Your task to perform on an android device: Do I have any events tomorrow? Image 0: 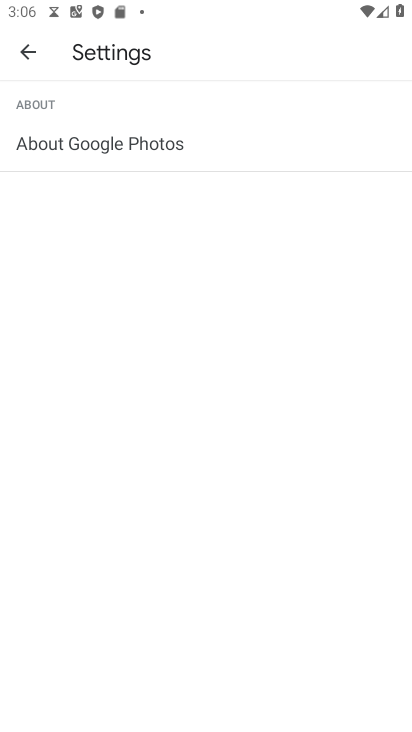
Step 0: drag from (174, 498) to (244, 168)
Your task to perform on an android device: Do I have any events tomorrow? Image 1: 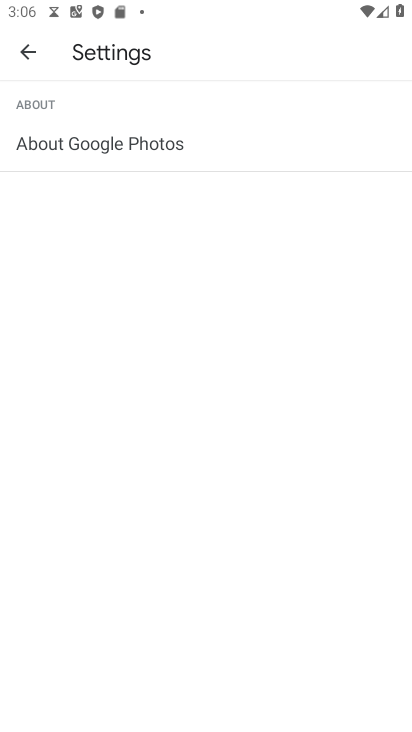
Step 1: drag from (169, 555) to (258, 186)
Your task to perform on an android device: Do I have any events tomorrow? Image 2: 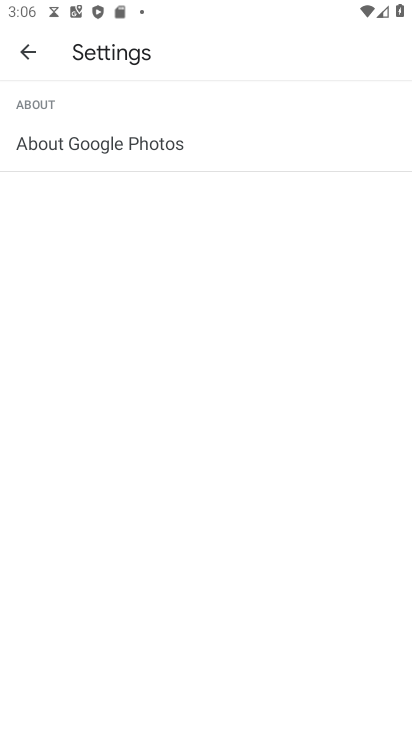
Step 2: drag from (266, 437) to (288, 258)
Your task to perform on an android device: Do I have any events tomorrow? Image 3: 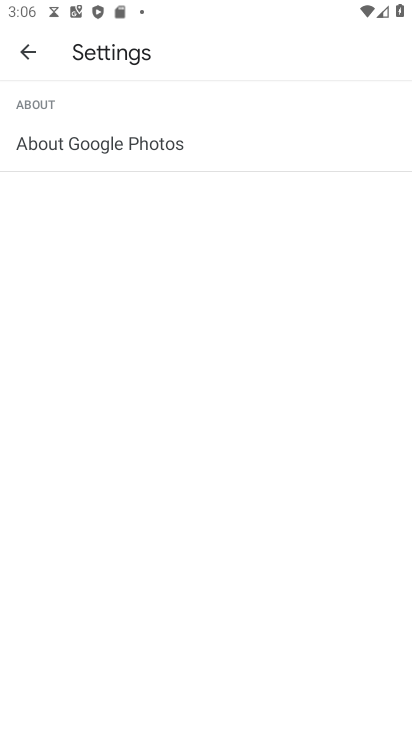
Step 3: press home button
Your task to perform on an android device: Do I have any events tomorrow? Image 4: 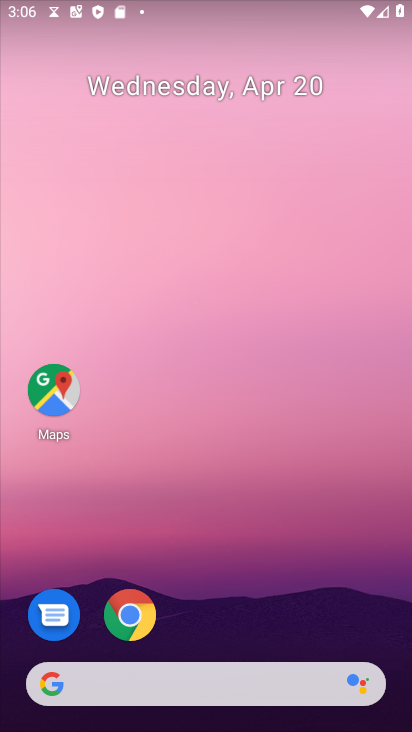
Step 4: drag from (205, 558) to (255, 164)
Your task to perform on an android device: Do I have any events tomorrow? Image 5: 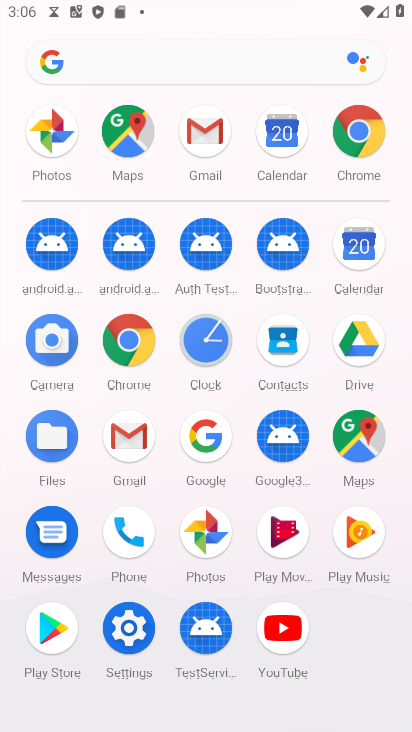
Step 5: click (360, 252)
Your task to perform on an android device: Do I have any events tomorrow? Image 6: 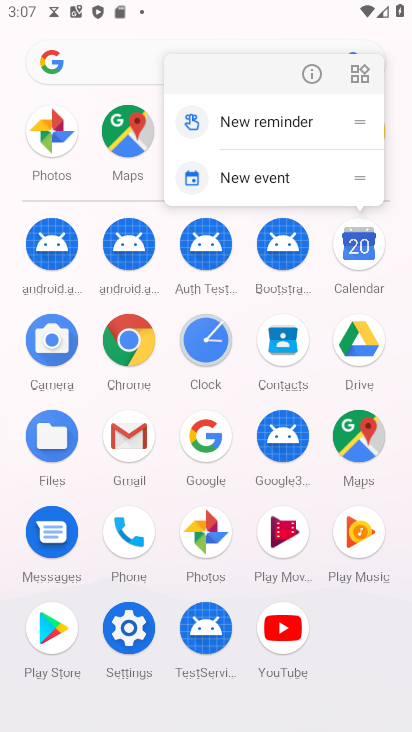
Step 6: click (307, 67)
Your task to perform on an android device: Do I have any events tomorrow? Image 7: 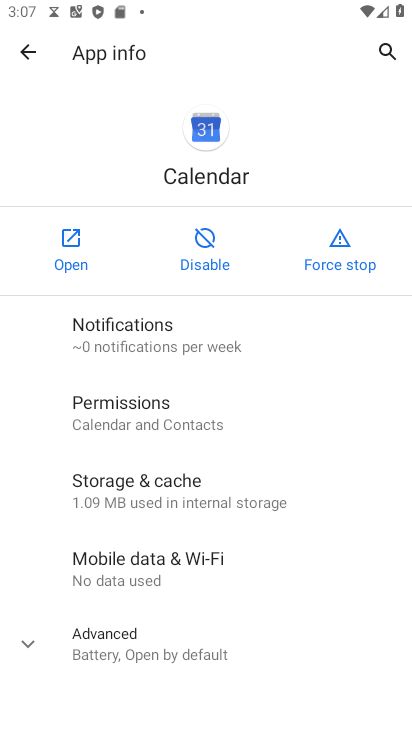
Step 7: click (85, 237)
Your task to perform on an android device: Do I have any events tomorrow? Image 8: 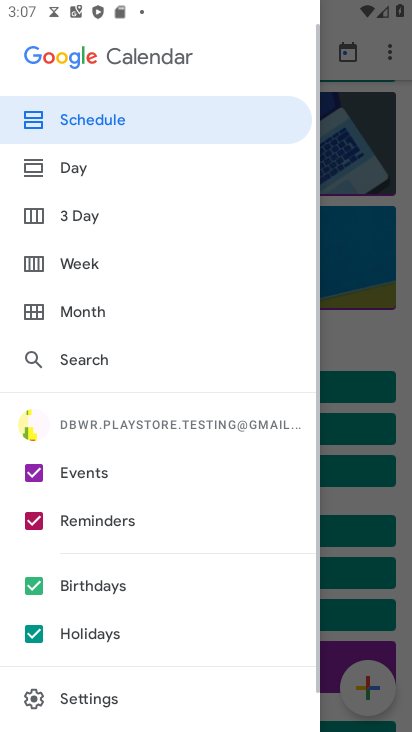
Step 8: drag from (166, 468) to (224, 187)
Your task to perform on an android device: Do I have any events tomorrow? Image 9: 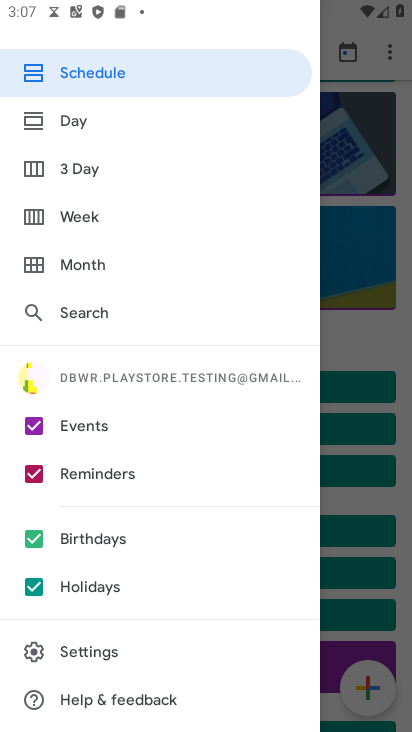
Step 9: click (83, 131)
Your task to perform on an android device: Do I have any events tomorrow? Image 10: 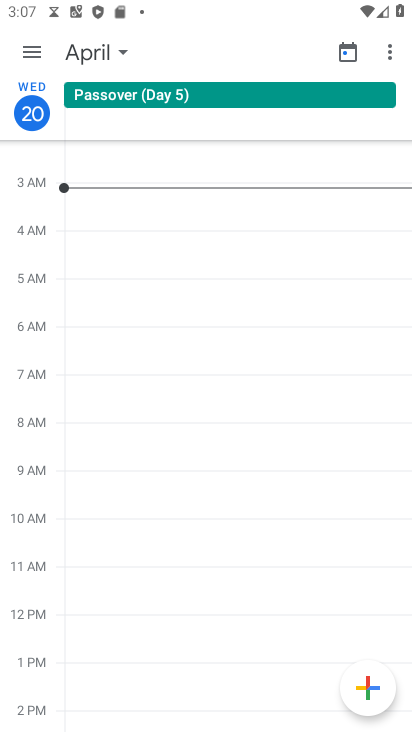
Step 10: click (114, 52)
Your task to perform on an android device: Do I have any events tomorrow? Image 11: 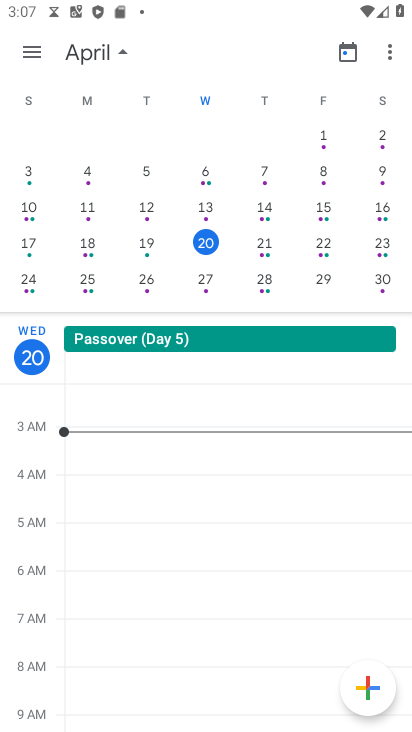
Step 11: click (266, 241)
Your task to perform on an android device: Do I have any events tomorrow? Image 12: 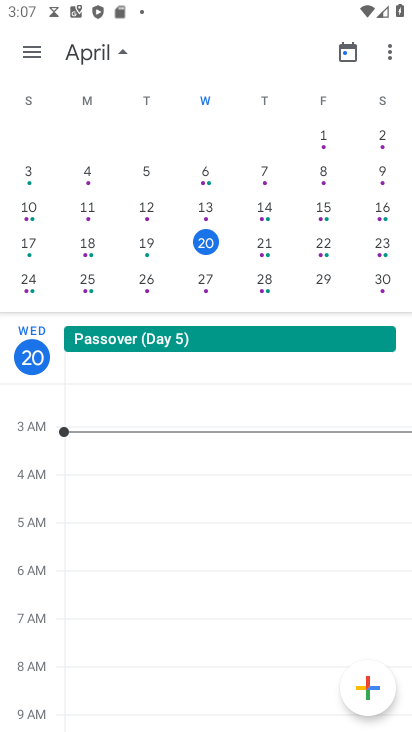
Step 12: task complete